Your task to perform on an android device: Check the settings for the Facebook app Image 0: 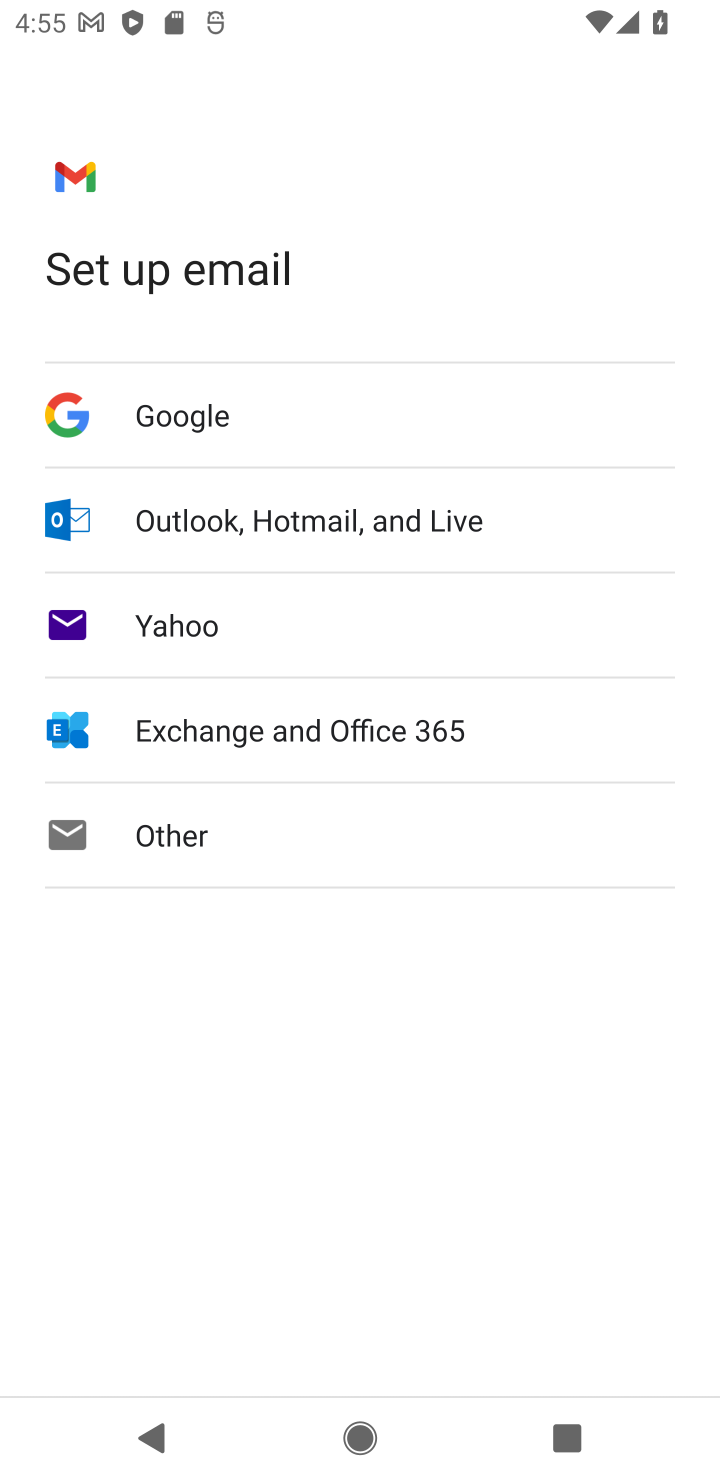
Step 0: press home button
Your task to perform on an android device: Check the settings for the Facebook app Image 1: 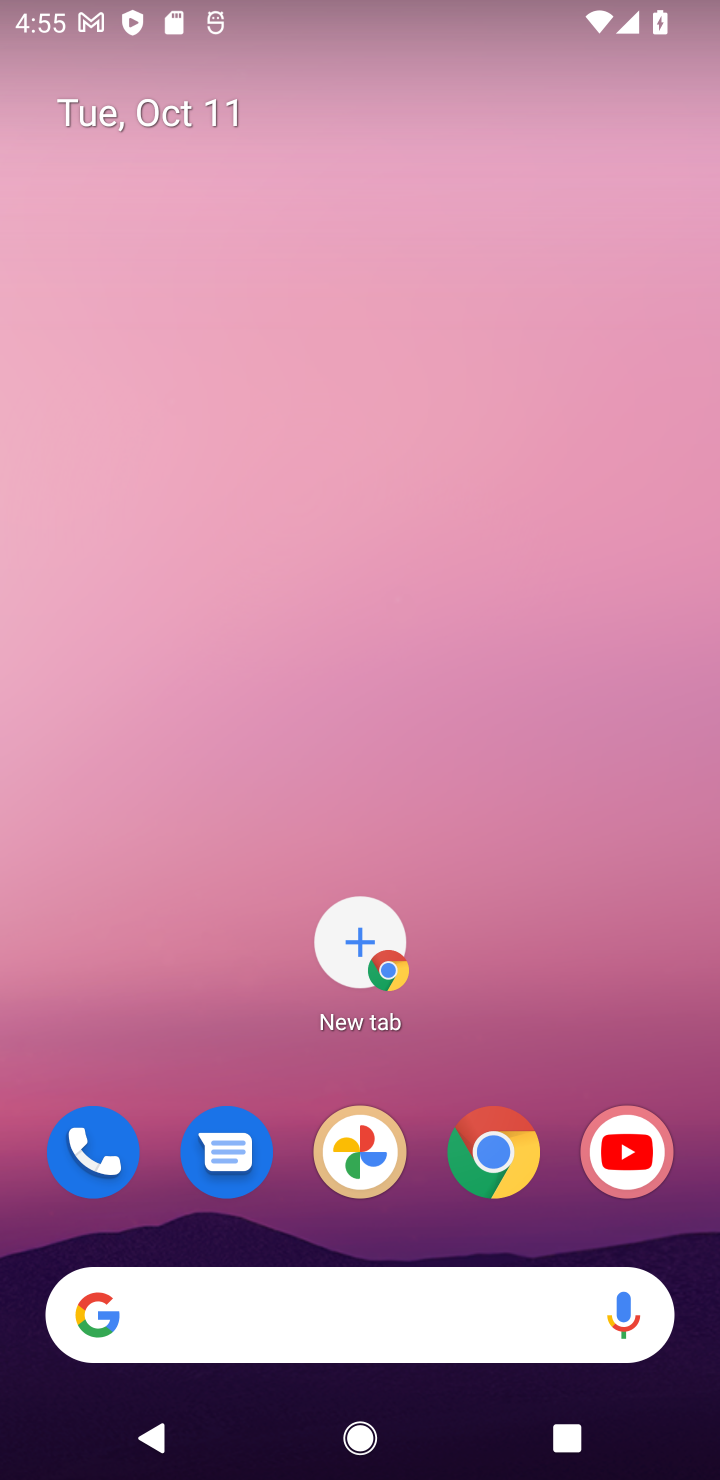
Step 1: drag from (371, 1221) to (517, 82)
Your task to perform on an android device: Check the settings for the Facebook app Image 2: 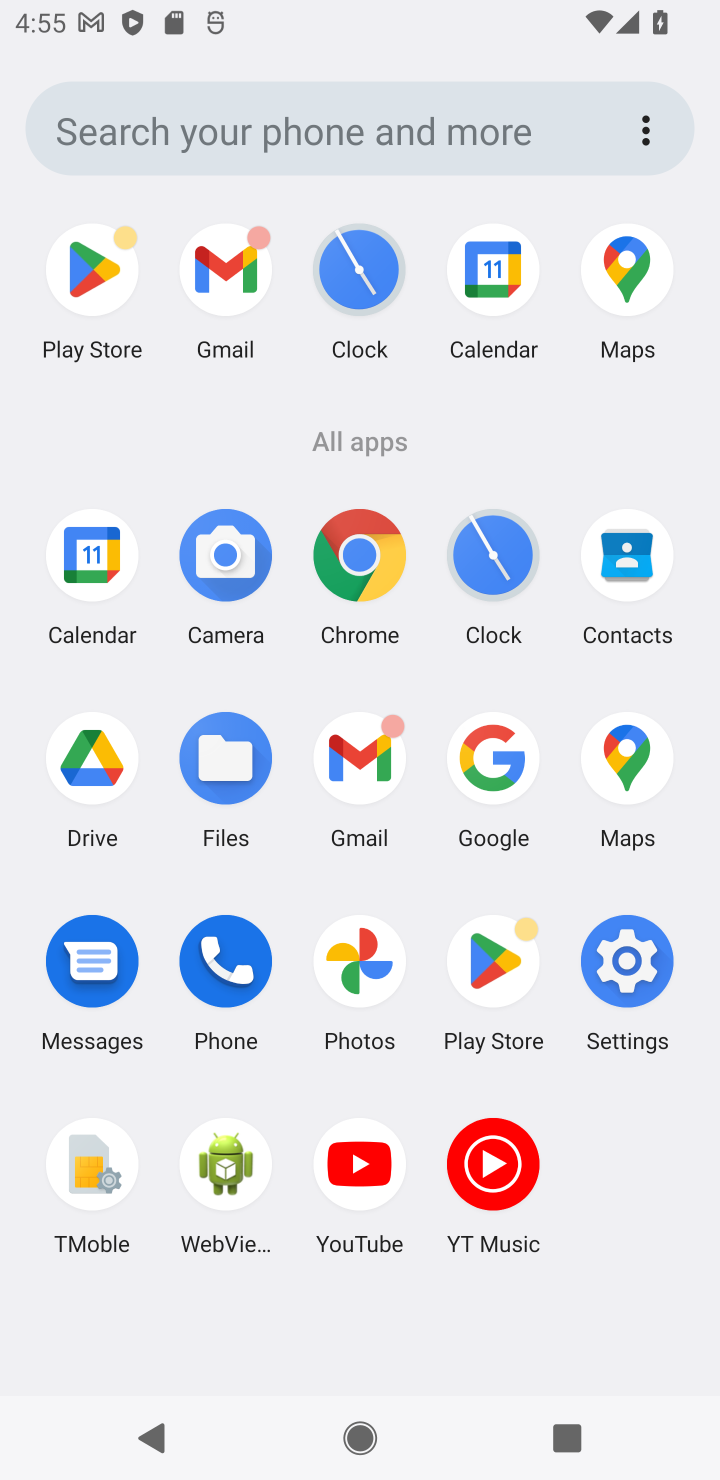
Step 2: click (85, 282)
Your task to perform on an android device: Check the settings for the Facebook app Image 3: 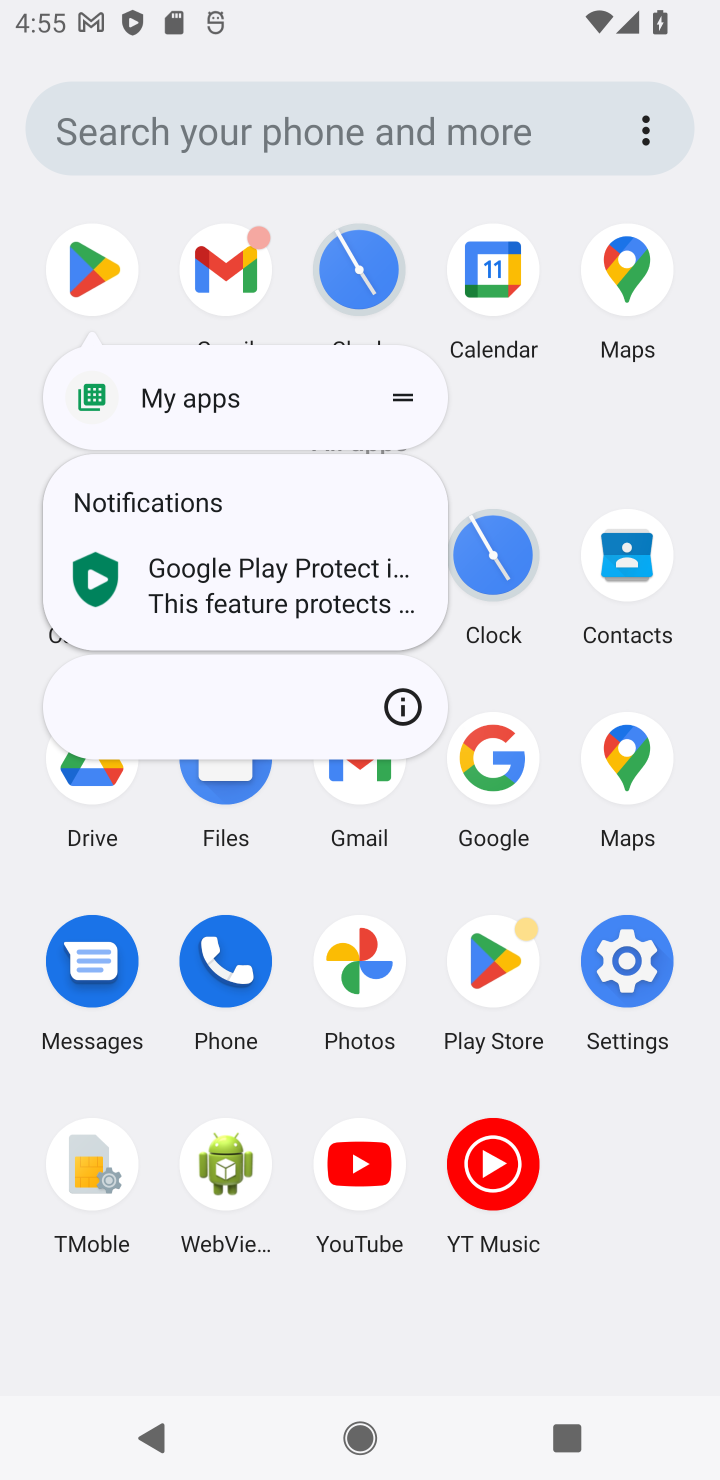
Step 3: click (92, 256)
Your task to perform on an android device: Check the settings for the Facebook app Image 4: 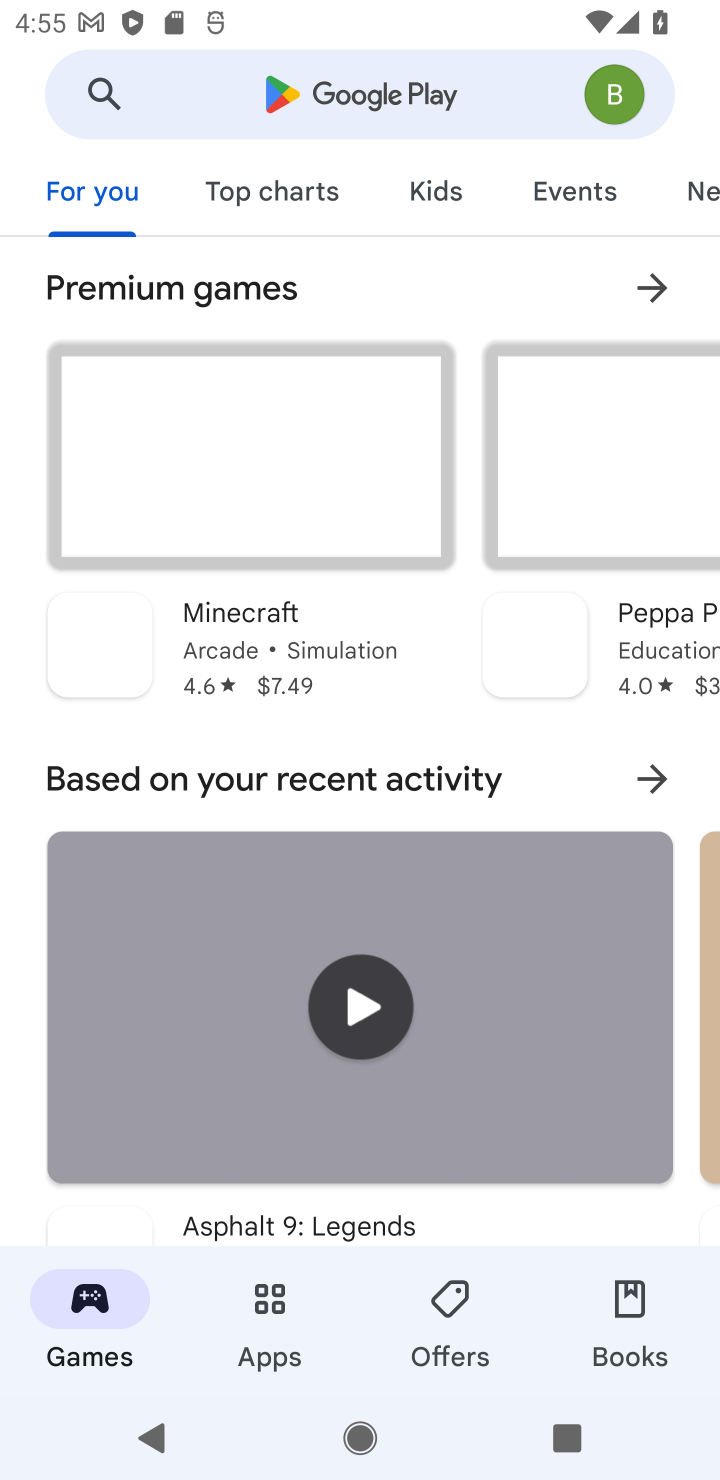
Step 4: click (379, 95)
Your task to perform on an android device: Check the settings for the Facebook app Image 5: 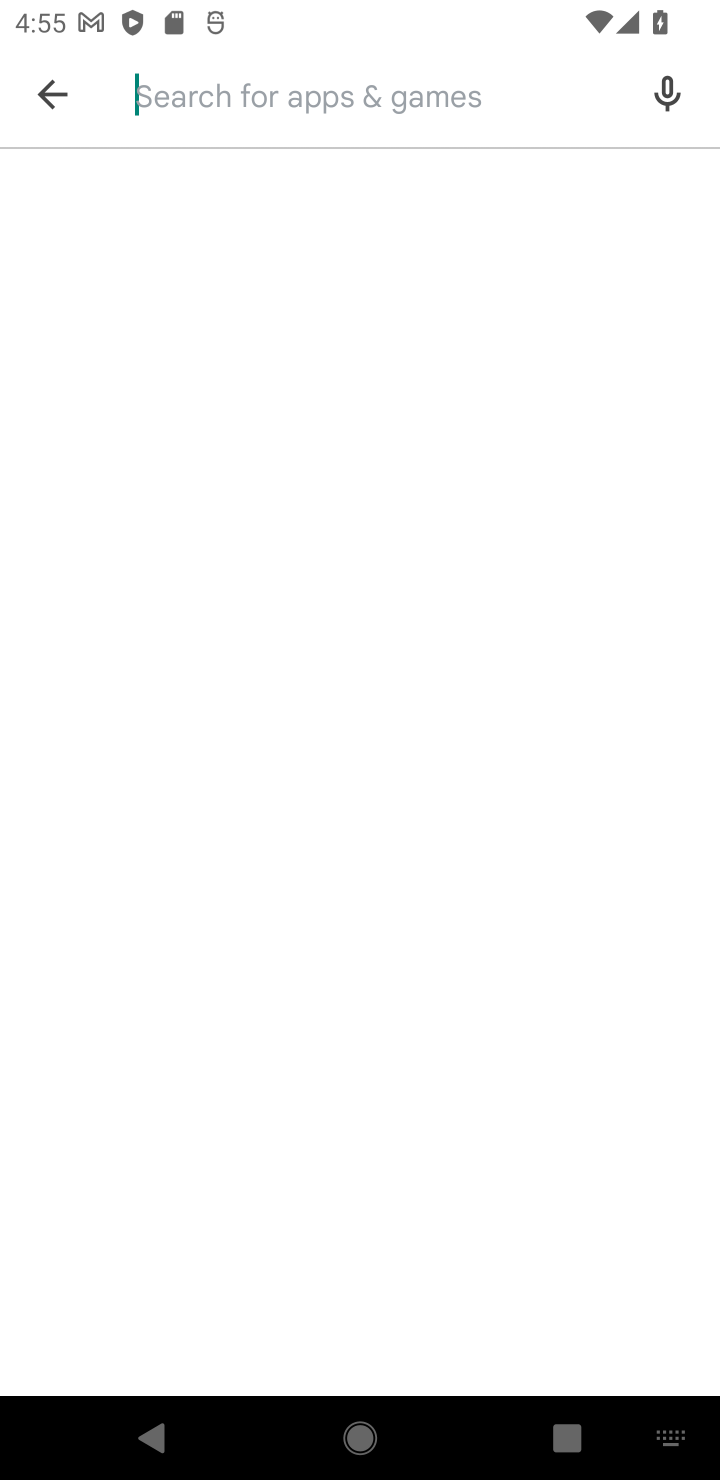
Step 5: type "facebook"
Your task to perform on an android device: Check the settings for the Facebook app Image 6: 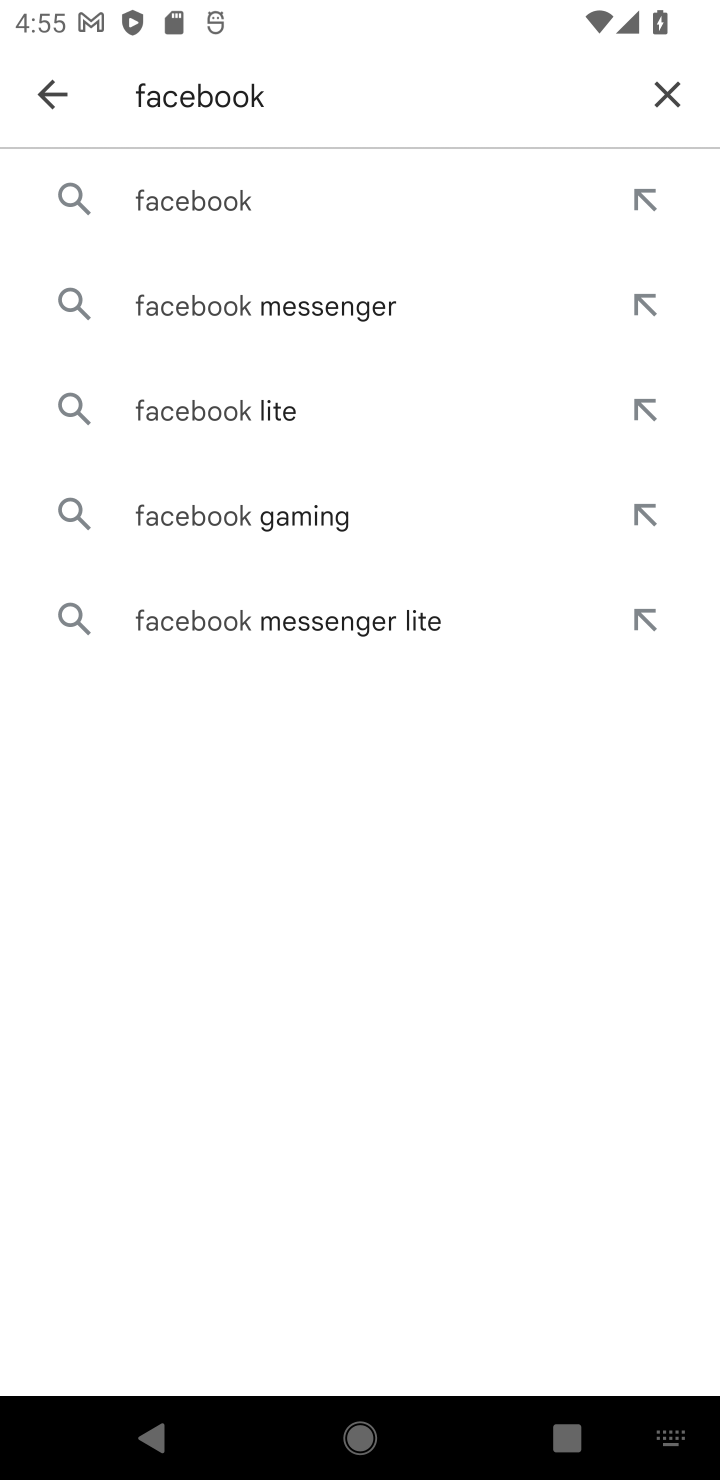
Step 6: click (289, 220)
Your task to perform on an android device: Check the settings for the Facebook app Image 7: 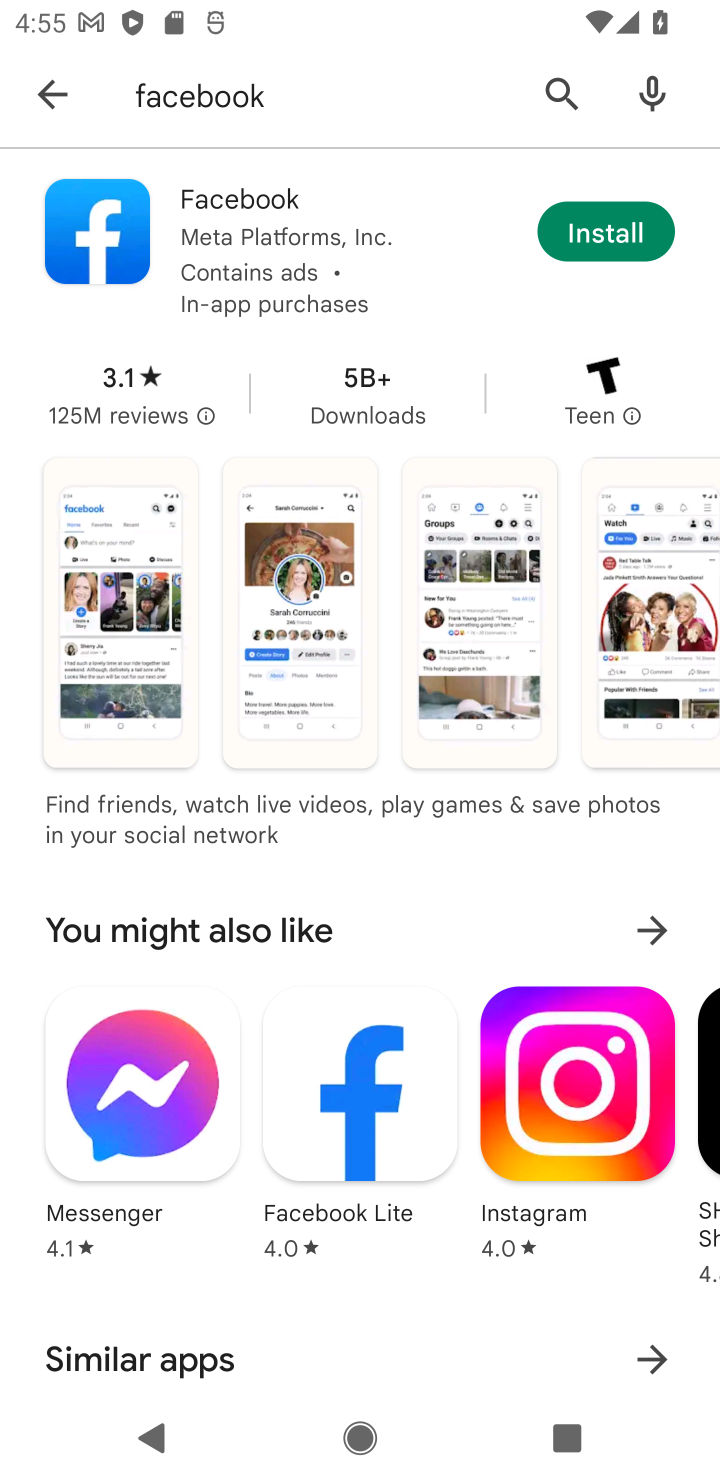
Step 7: click (608, 248)
Your task to perform on an android device: Check the settings for the Facebook app Image 8: 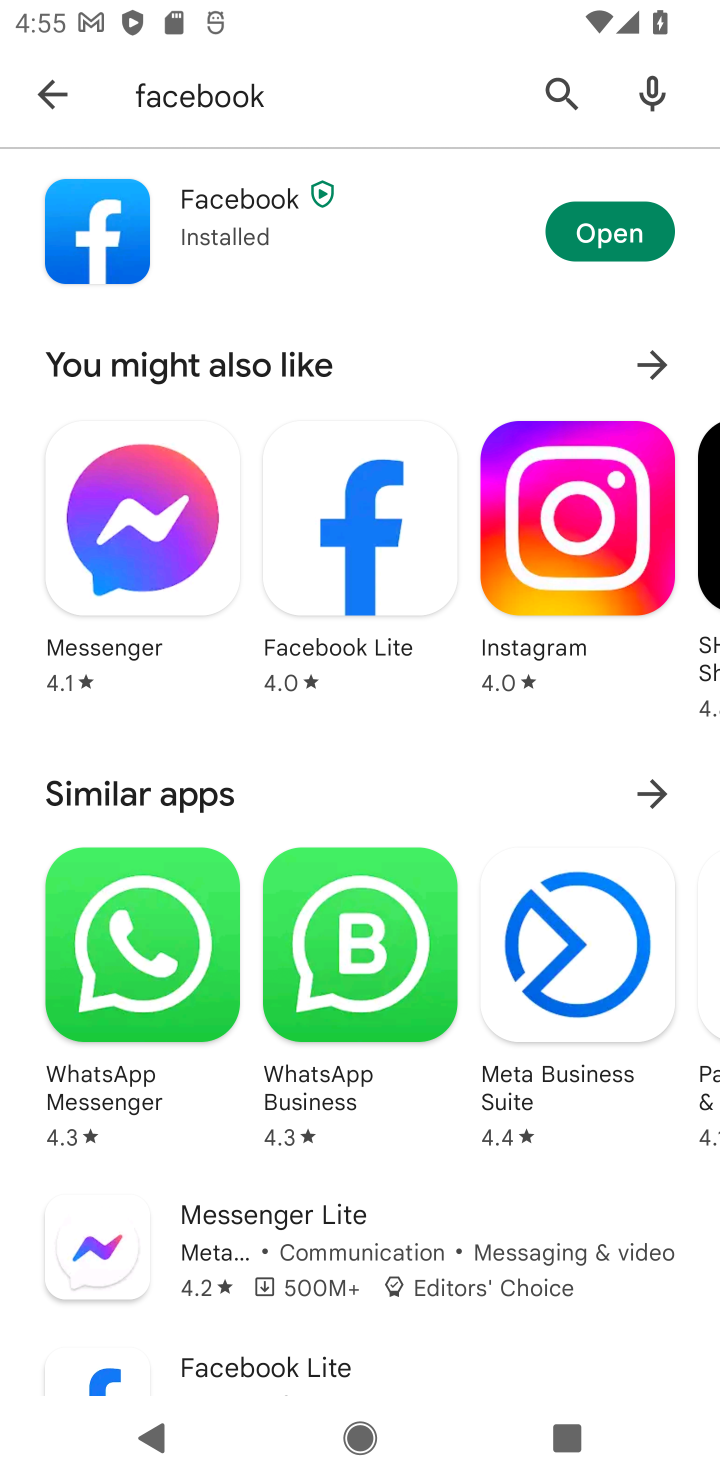
Step 8: click (604, 226)
Your task to perform on an android device: Check the settings for the Facebook app Image 9: 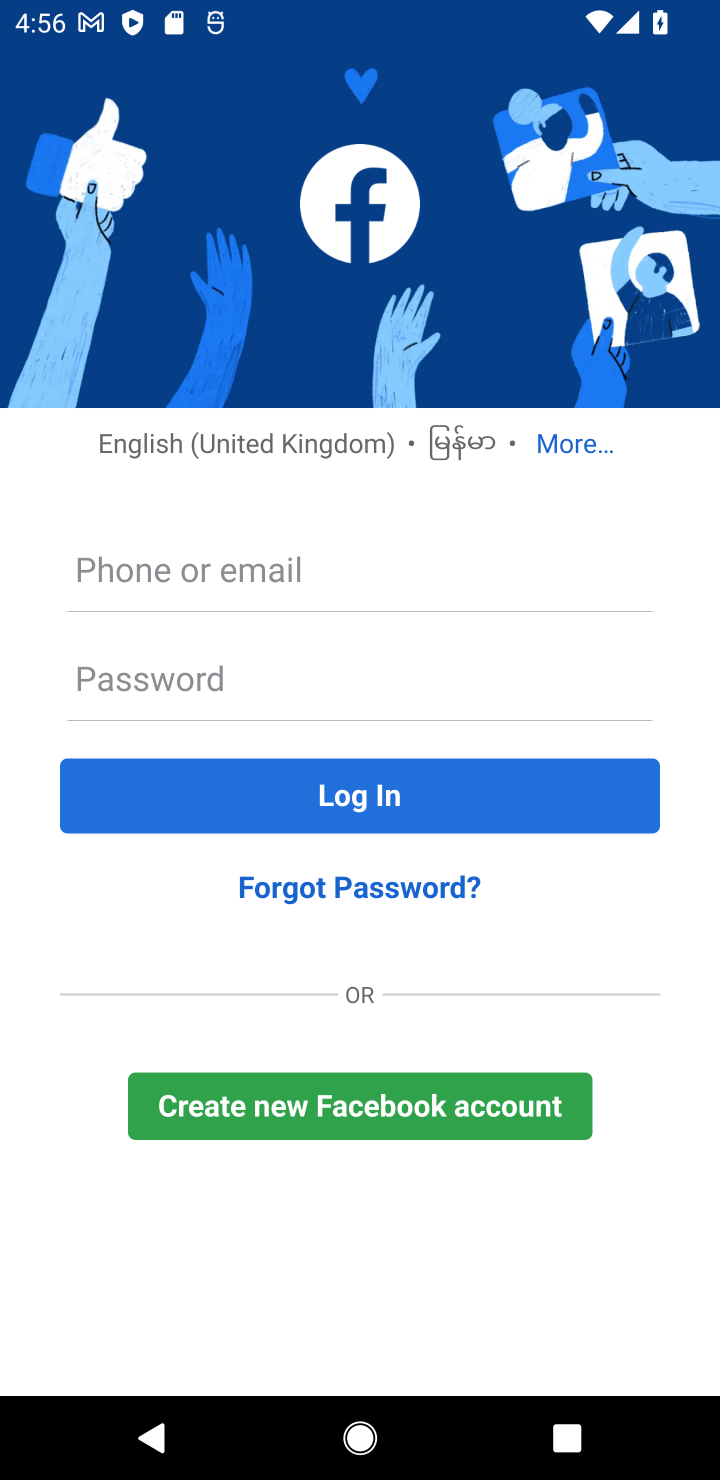
Step 9: drag from (615, 1076) to (668, 474)
Your task to perform on an android device: Check the settings for the Facebook app Image 10: 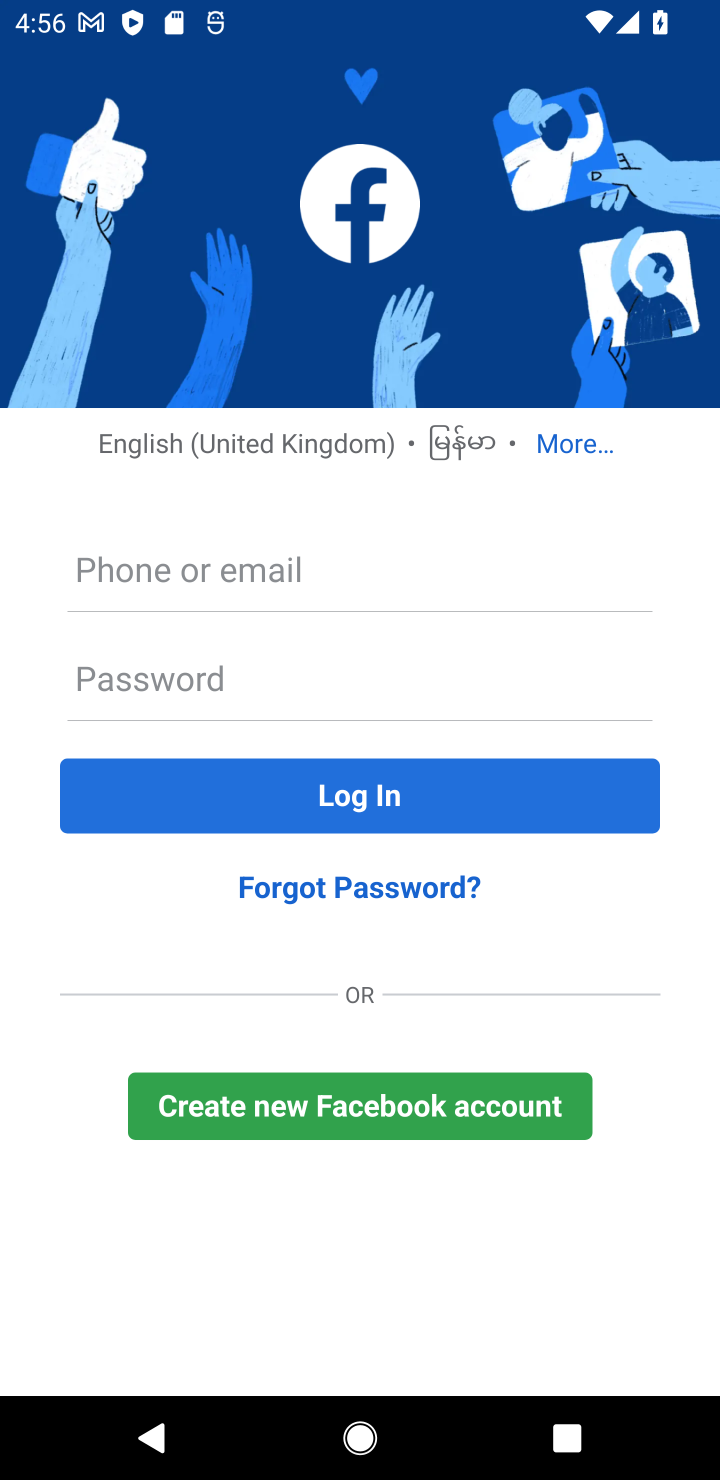
Step 10: click (606, 446)
Your task to perform on an android device: Check the settings for the Facebook app Image 11: 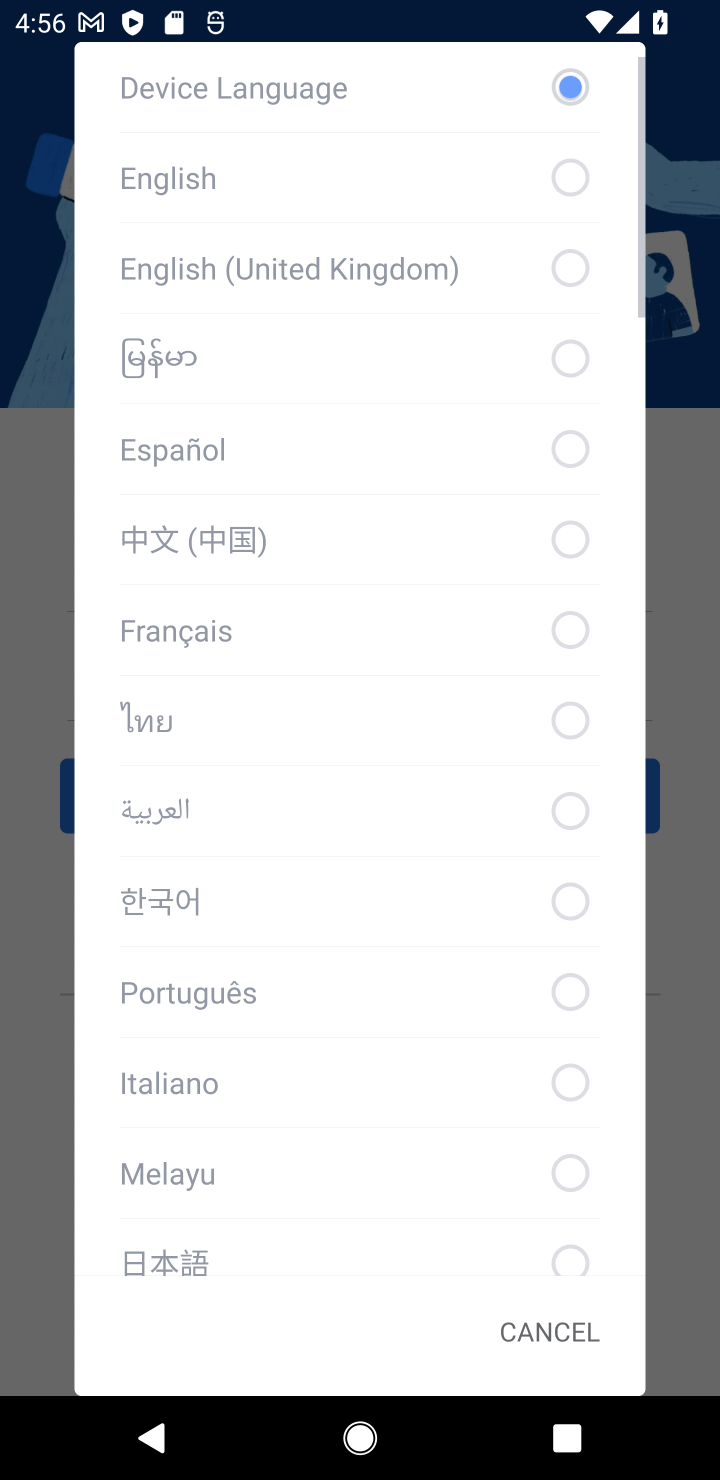
Step 11: drag from (380, 1071) to (442, 350)
Your task to perform on an android device: Check the settings for the Facebook app Image 12: 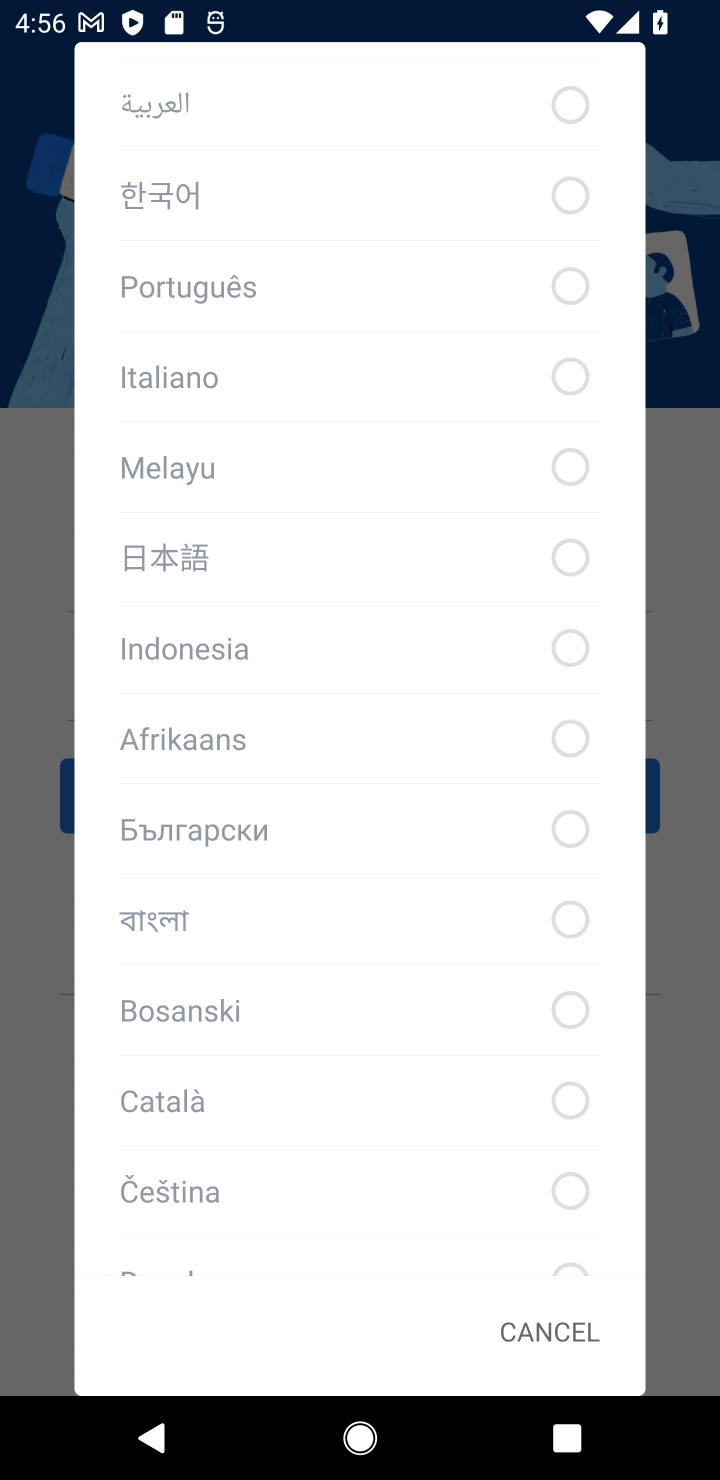
Step 12: drag from (307, 455) to (277, 1361)
Your task to perform on an android device: Check the settings for the Facebook app Image 13: 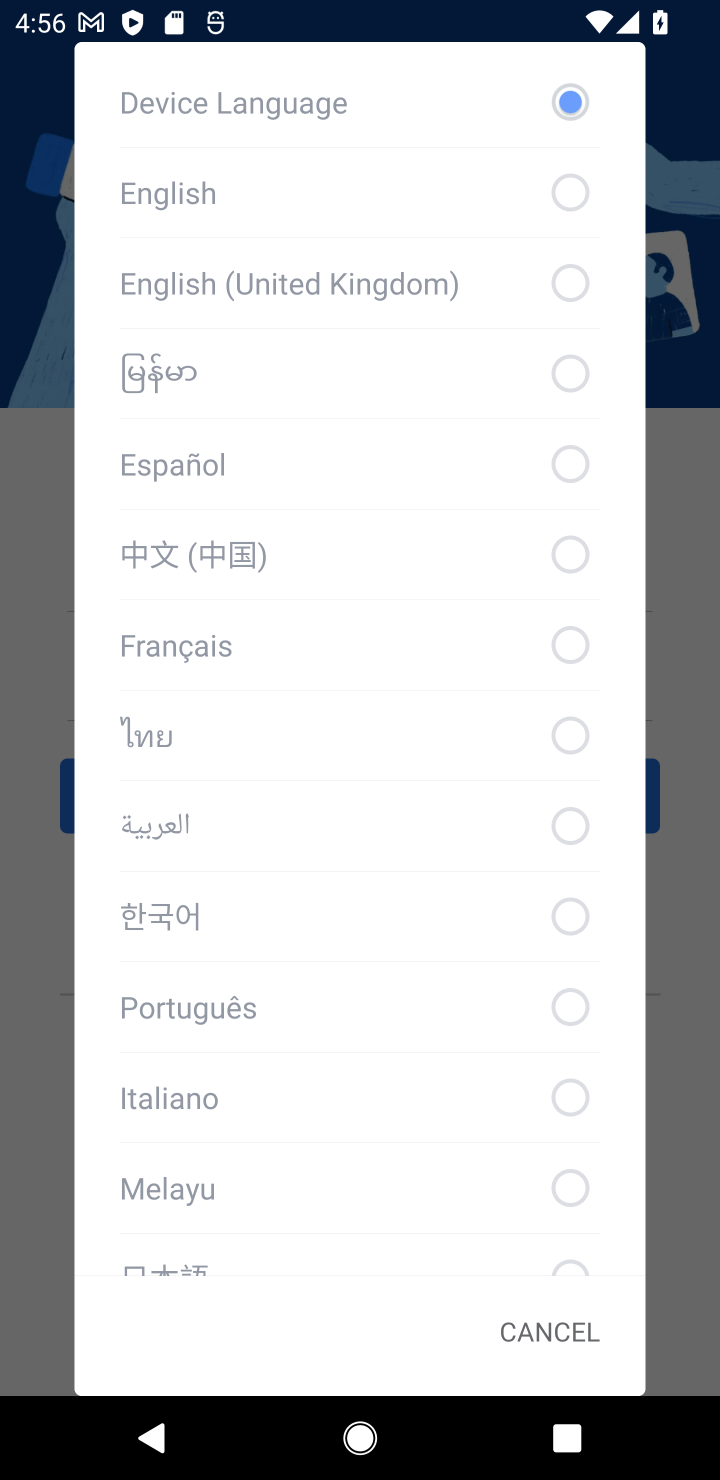
Step 13: click (260, 103)
Your task to perform on an android device: Check the settings for the Facebook app Image 14: 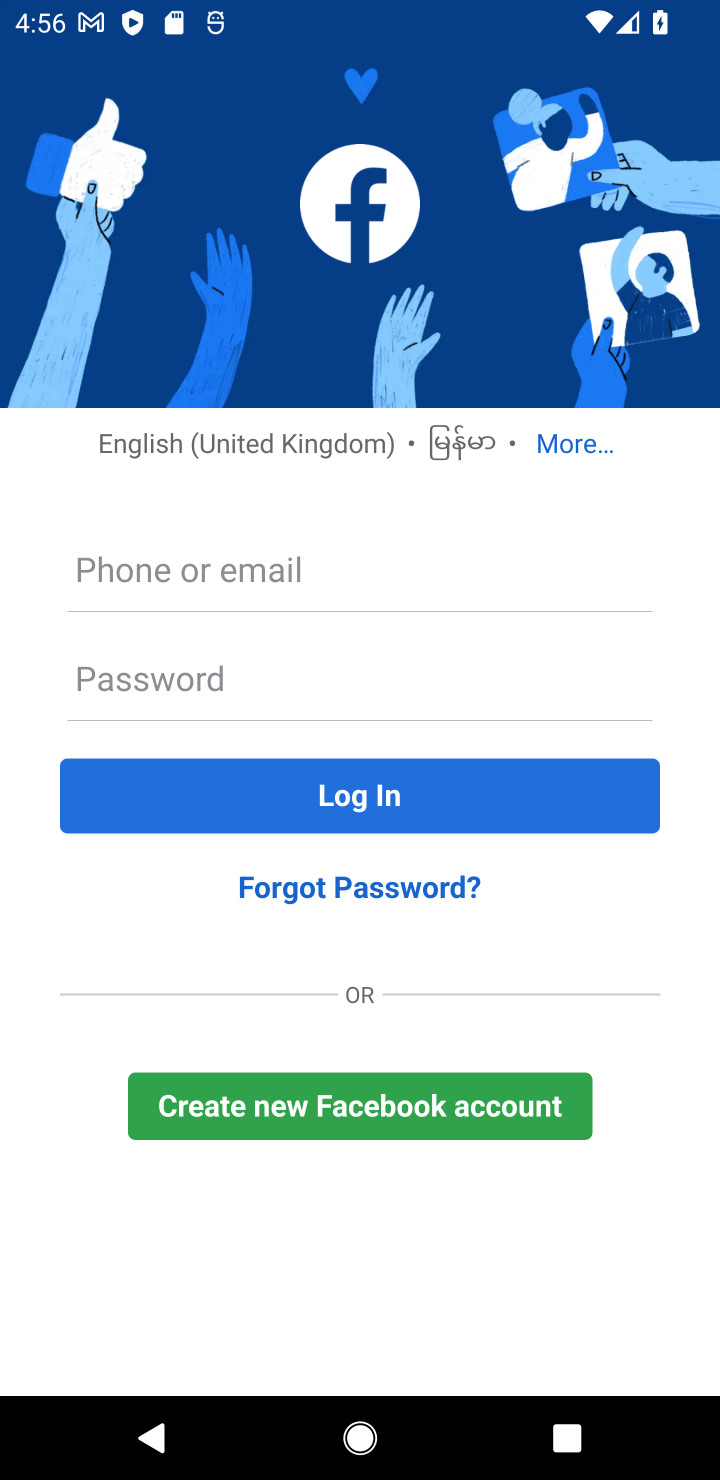
Step 14: drag from (523, 1235) to (552, 1022)
Your task to perform on an android device: Check the settings for the Facebook app Image 15: 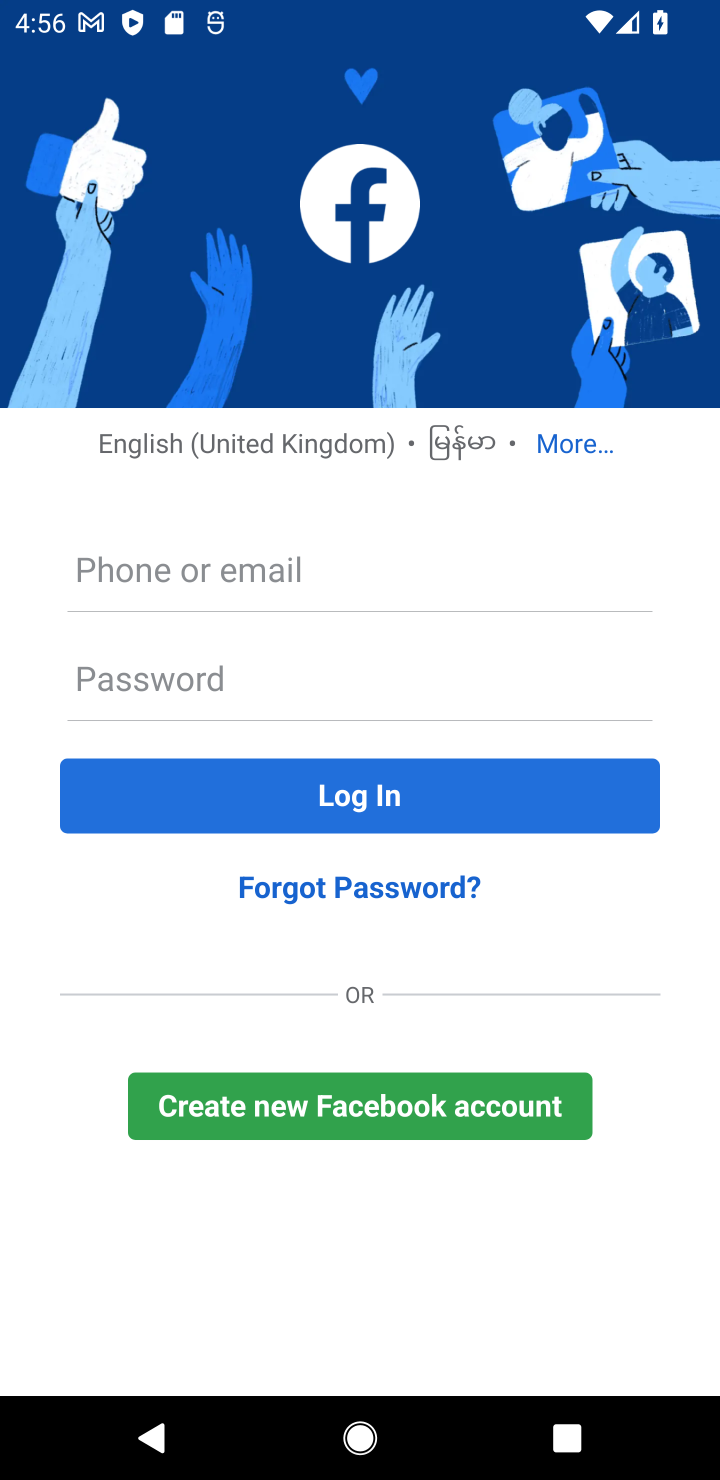
Step 15: click (426, 1093)
Your task to perform on an android device: Check the settings for the Facebook app Image 16: 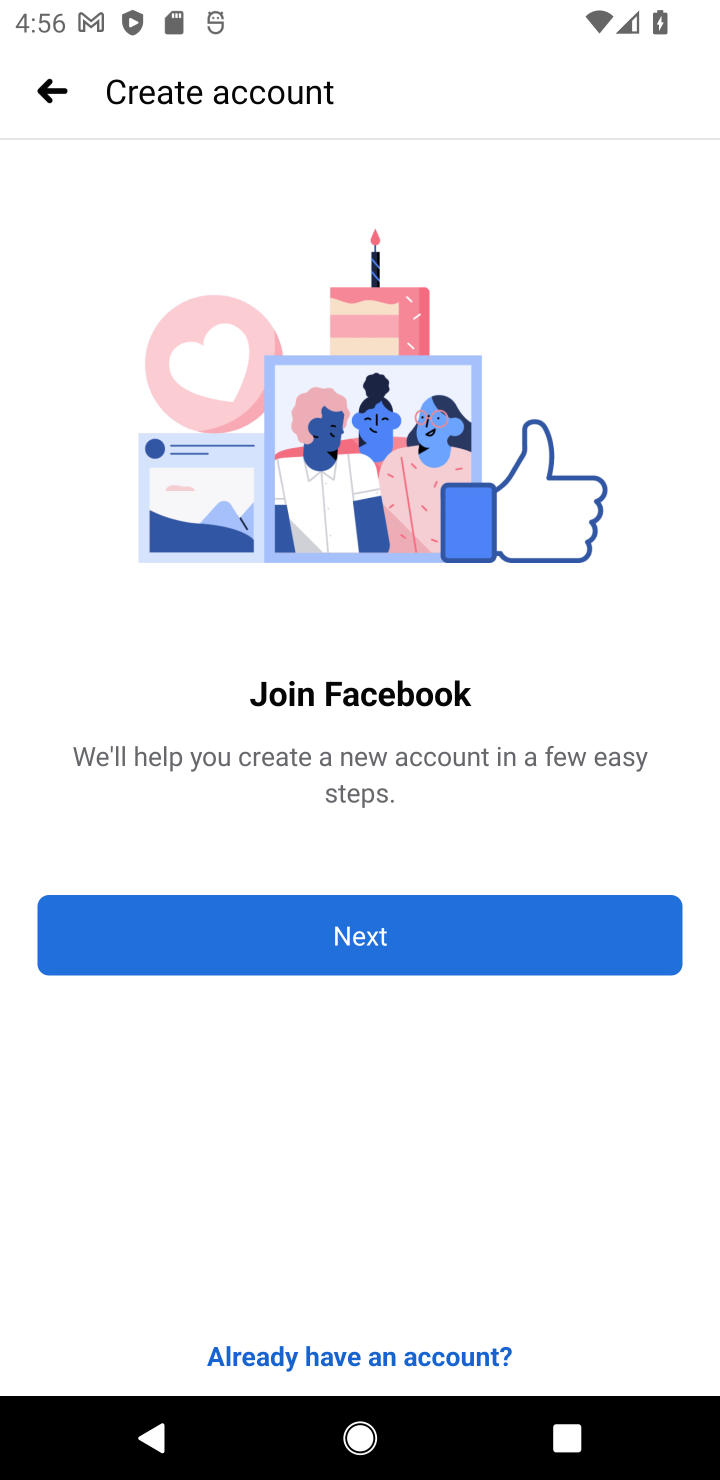
Step 16: click (367, 1341)
Your task to perform on an android device: Check the settings for the Facebook app Image 17: 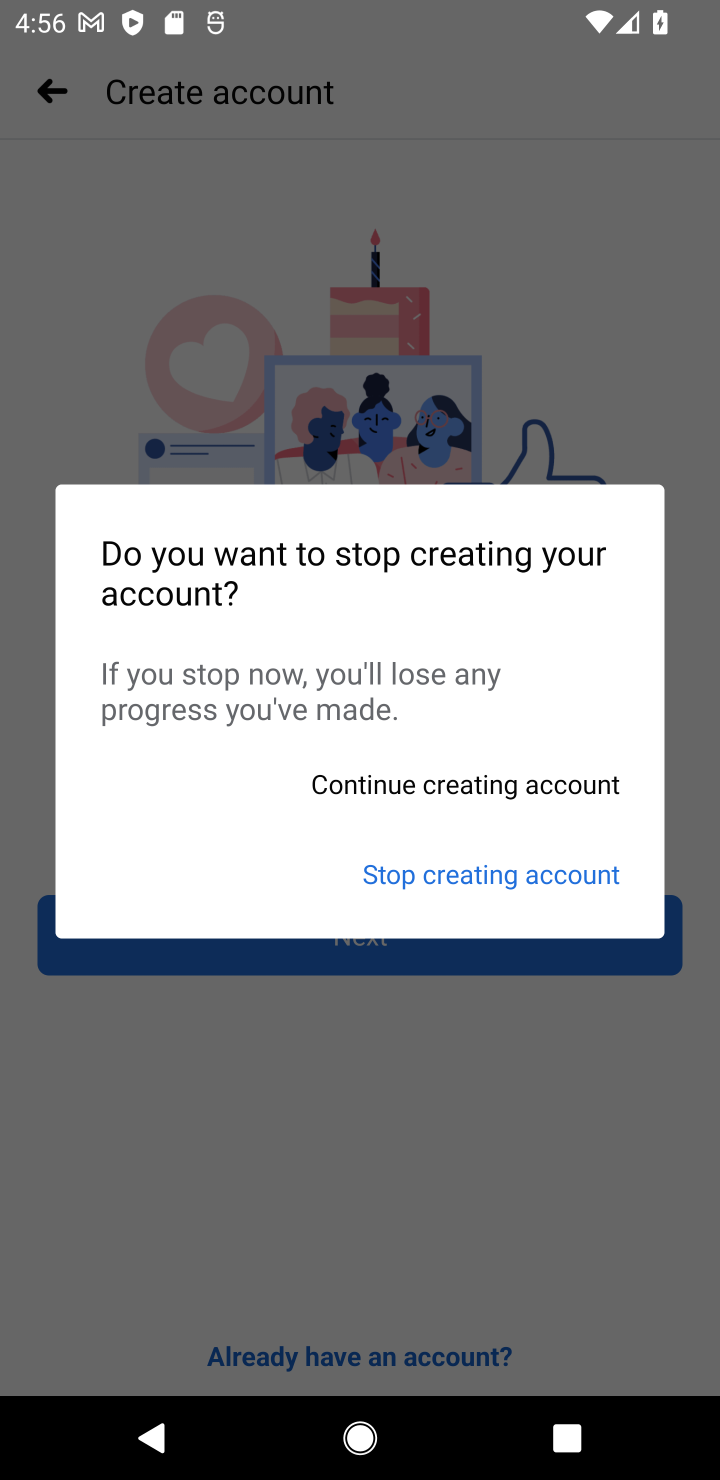
Step 17: click (423, 881)
Your task to perform on an android device: Check the settings for the Facebook app Image 18: 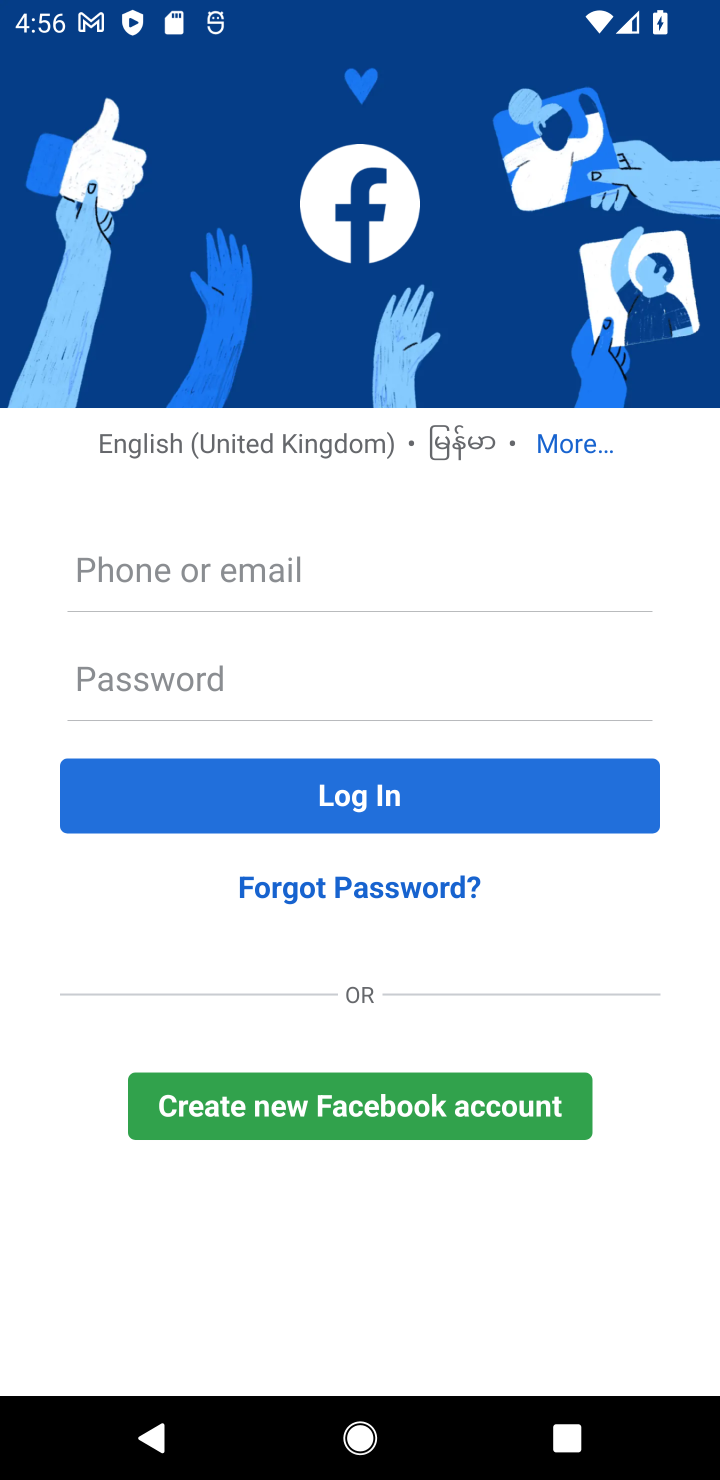
Step 18: click (575, 417)
Your task to perform on an android device: Check the settings for the Facebook app Image 19: 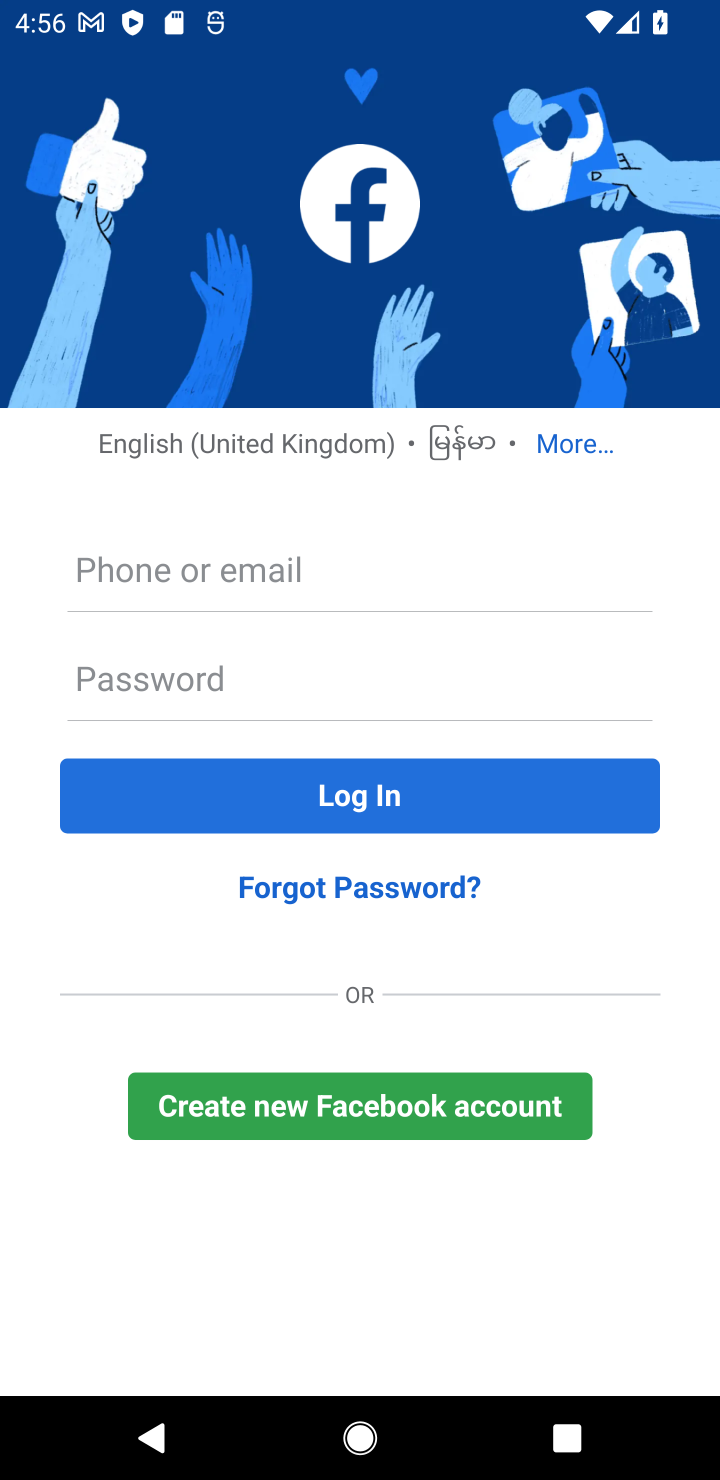
Step 19: task complete